Your task to perform on an android device: change notifications settings Image 0: 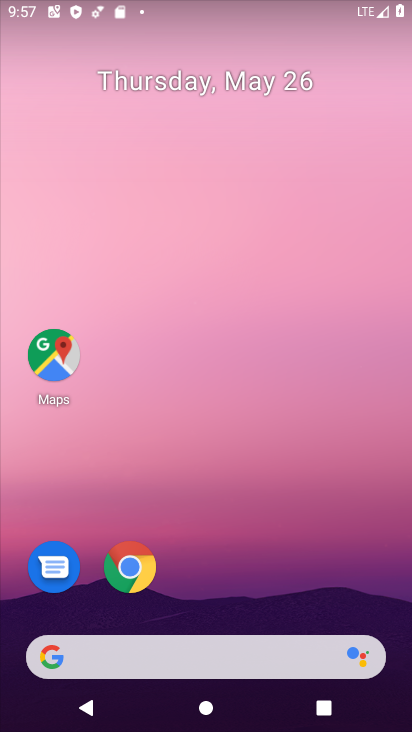
Step 0: drag from (252, 706) to (217, 116)
Your task to perform on an android device: change notifications settings Image 1: 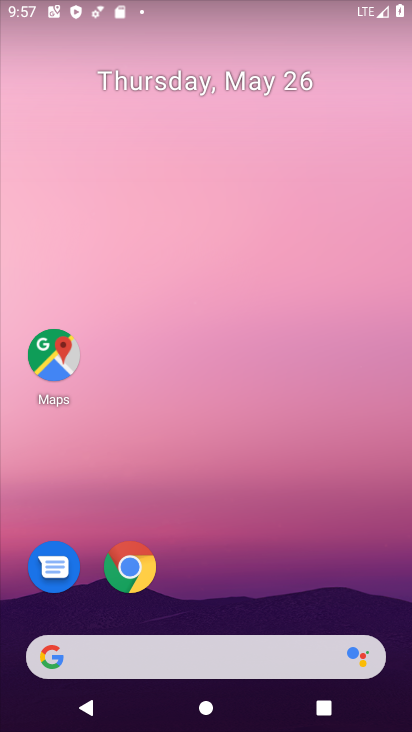
Step 1: drag from (252, 683) to (279, 49)
Your task to perform on an android device: change notifications settings Image 2: 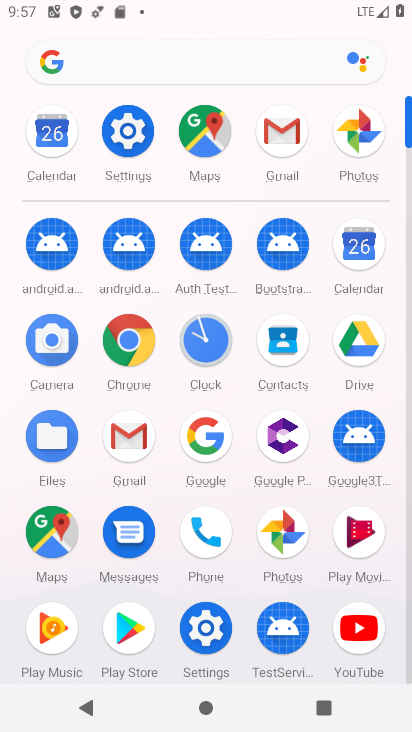
Step 2: click (132, 146)
Your task to perform on an android device: change notifications settings Image 3: 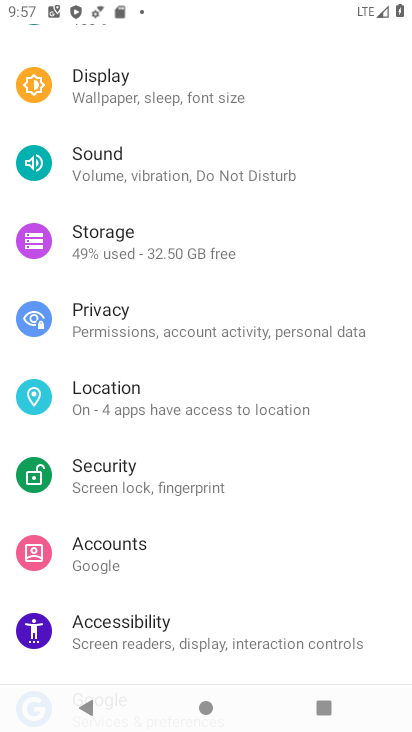
Step 3: drag from (233, 146) to (273, 588)
Your task to perform on an android device: change notifications settings Image 4: 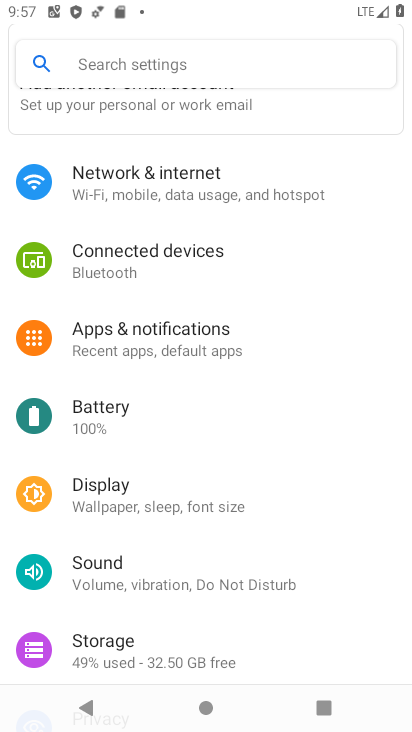
Step 4: click (228, 326)
Your task to perform on an android device: change notifications settings Image 5: 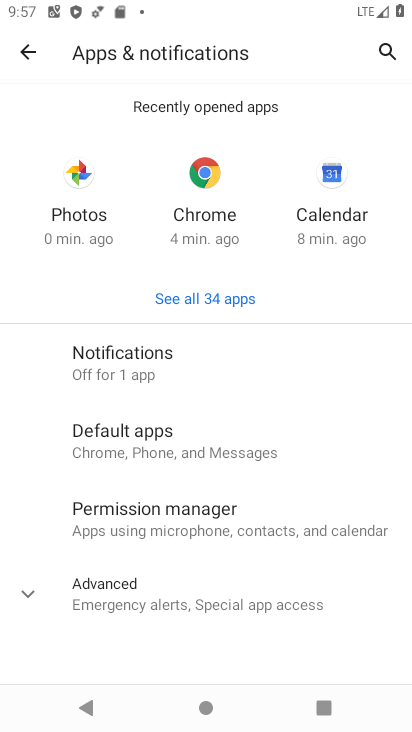
Step 5: click (291, 359)
Your task to perform on an android device: change notifications settings Image 6: 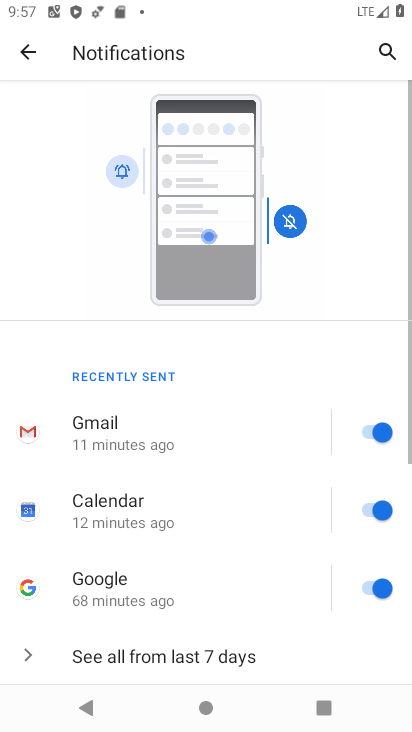
Step 6: click (382, 433)
Your task to perform on an android device: change notifications settings Image 7: 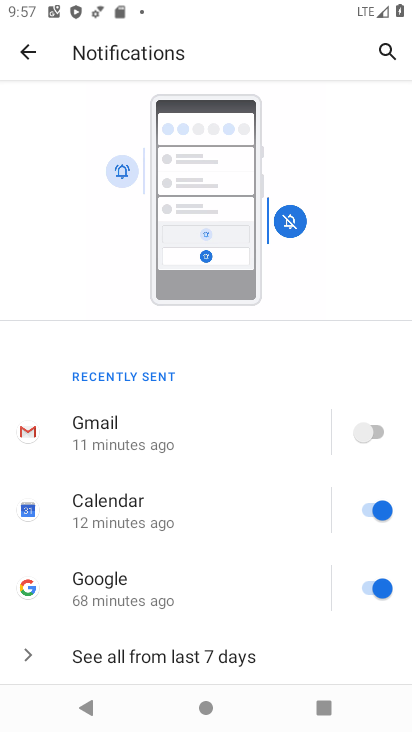
Step 7: task complete